Your task to perform on an android device: Open Android settings Image 0: 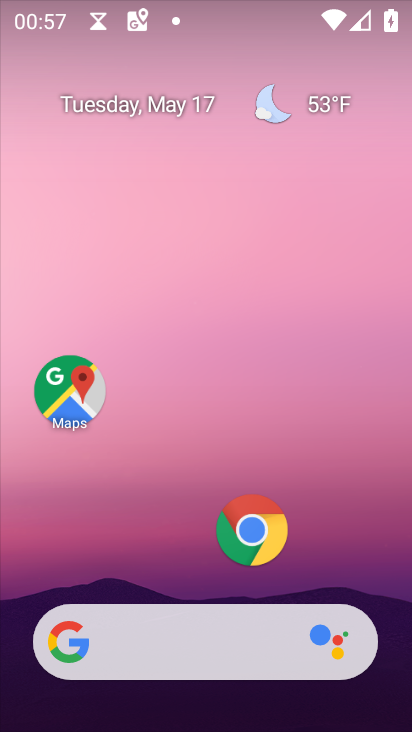
Step 0: drag from (340, 235) to (332, 98)
Your task to perform on an android device: Open Android settings Image 1: 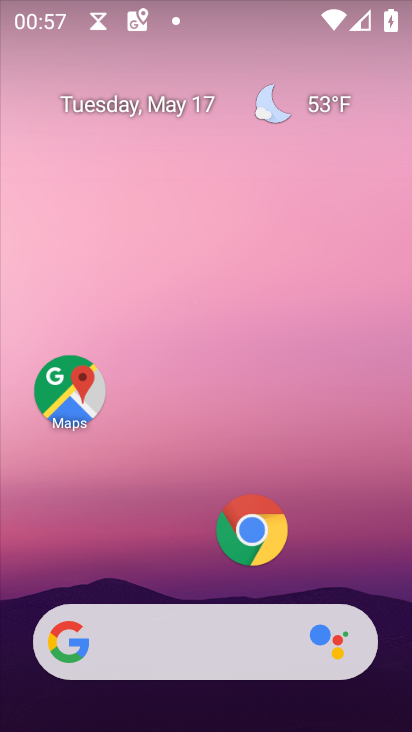
Step 1: drag from (285, 465) to (291, 103)
Your task to perform on an android device: Open Android settings Image 2: 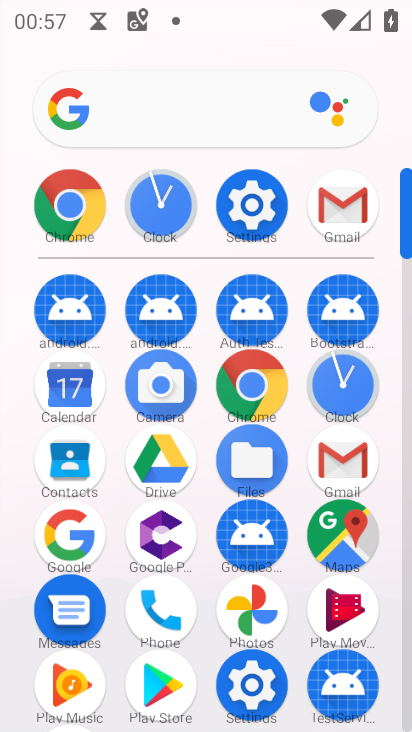
Step 2: click (242, 206)
Your task to perform on an android device: Open Android settings Image 3: 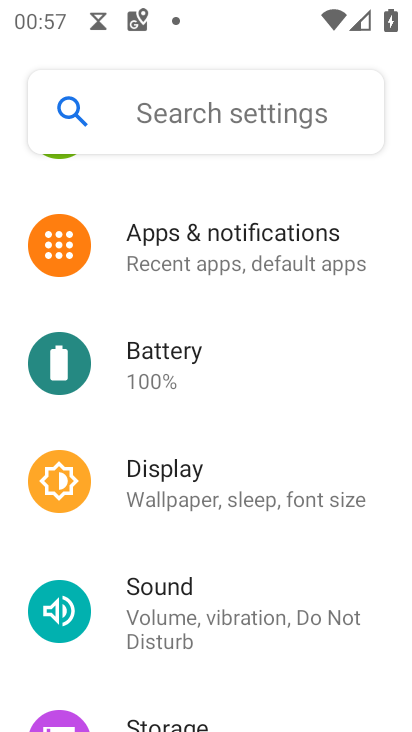
Step 3: task complete